Your task to perform on an android device: open device folders in google photos Image 0: 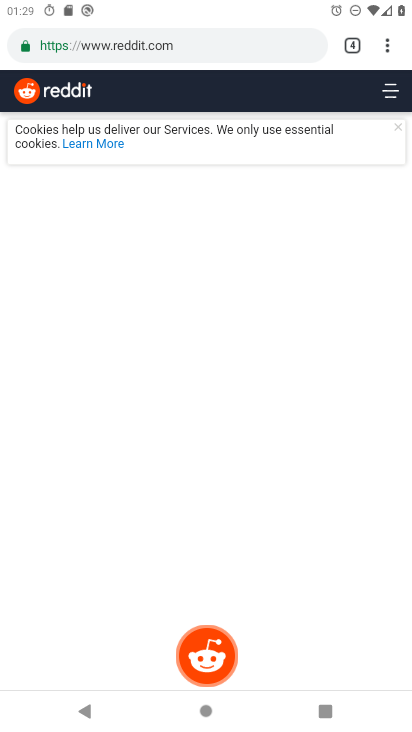
Step 0: press home button
Your task to perform on an android device: open device folders in google photos Image 1: 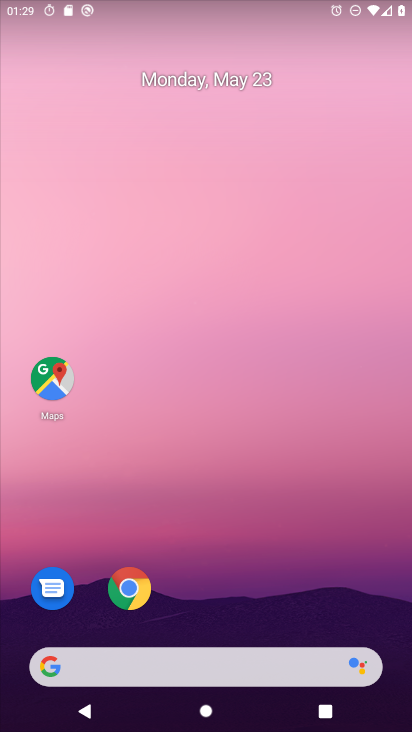
Step 1: drag from (258, 674) to (221, 0)
Your task to perform on an android device: open device folders in google photos Image 2: 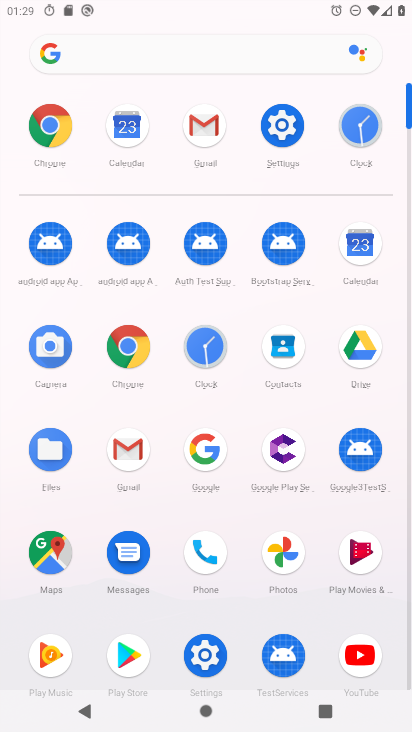
Step 2: click (291, 567)
Your task to perform on an android device: open device folders in google photos Image 3: 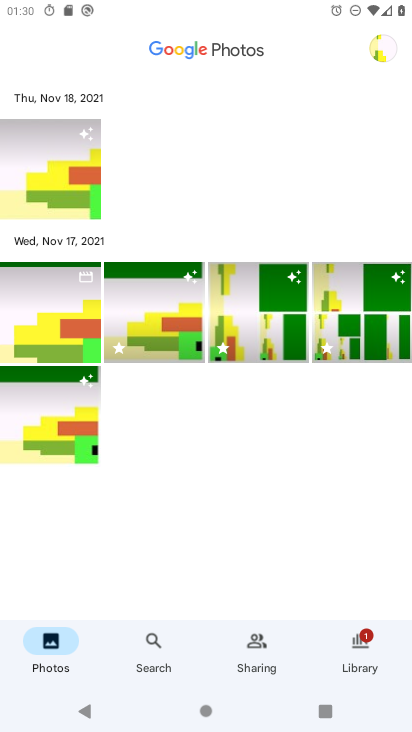
Step 3: click (145, 645)
Your task to perform on an android device: open device folders in google photos Image 4: 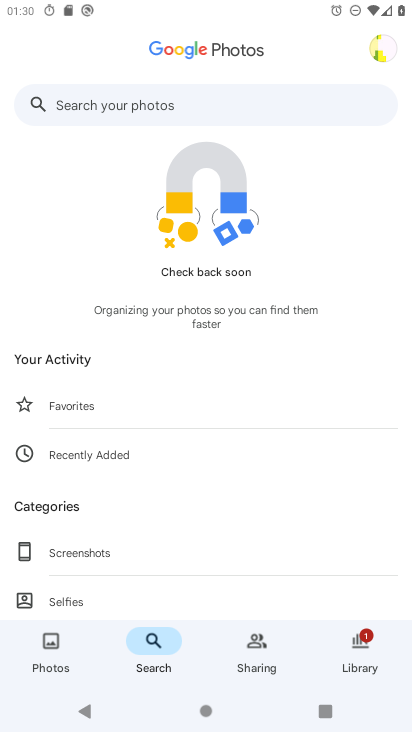
Step 4: click (151, 636)
Your task to perform on an android device: open device folders in google photos Image 5: 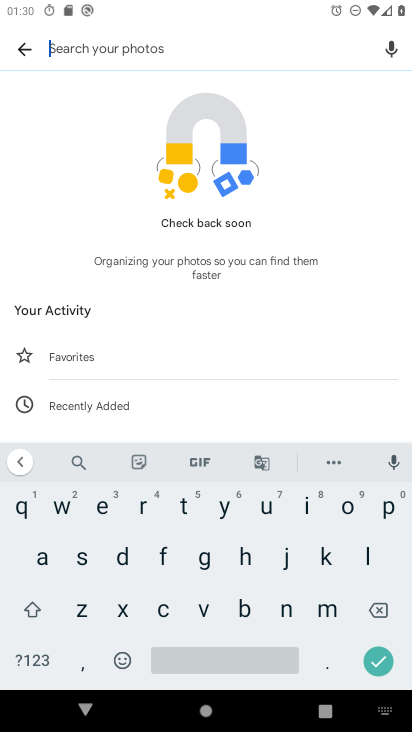
Step 5: click (120, 561)
Your task to perform on an android device: open device folders in google photos Image 6: 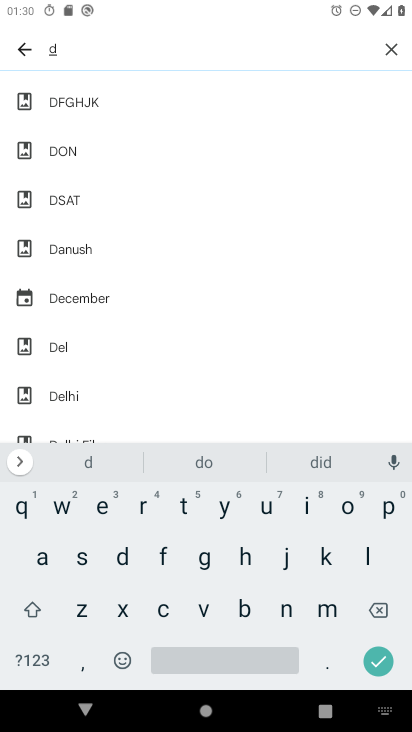
Step 6: click (93, 509)
Your task to perform on an android device: open device folders in google photos Image 7: 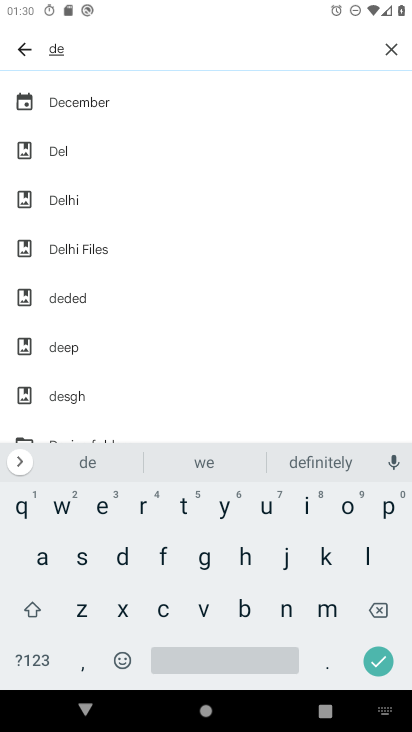
Step 7: click (205, 610)
Your task to perform on an android device: open device folders in google photos Image 8: 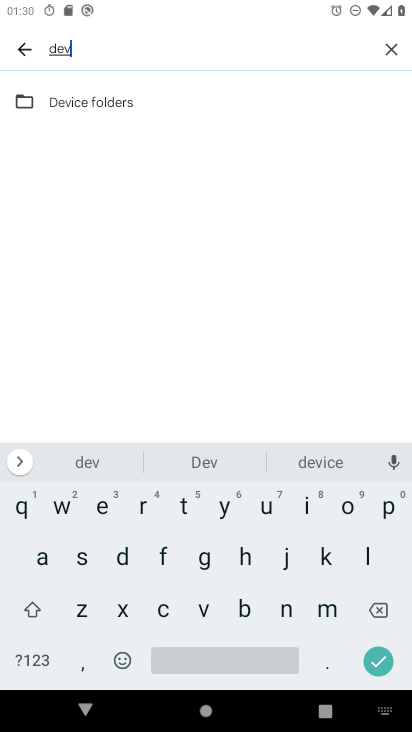
Step 8: click (108, 96)
Your task to perform on an android device: open device folders in google photos Image 9: 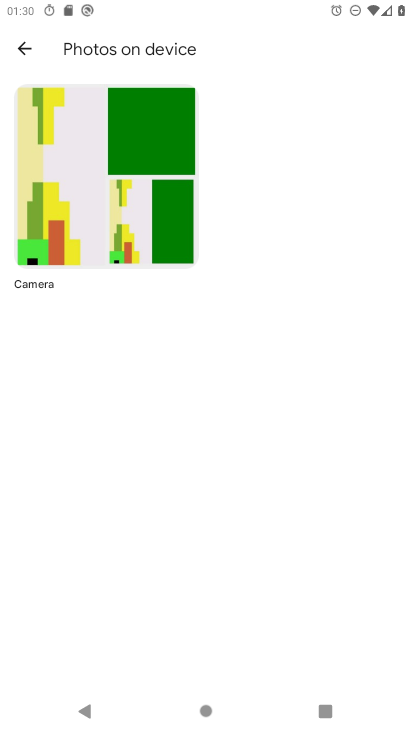
Step 9: task complete